Your task to perform on an android device: Open battery settings Image 0: 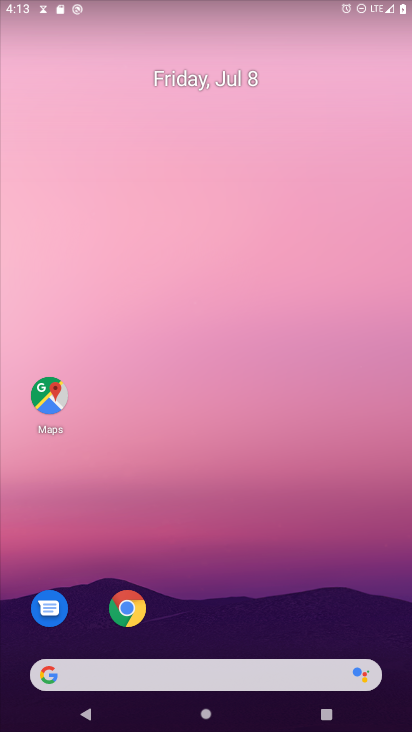
Step 0: drag from (226, 675) to (250, 158)
Your task to perform on an android device: Open battery settings Image 1: 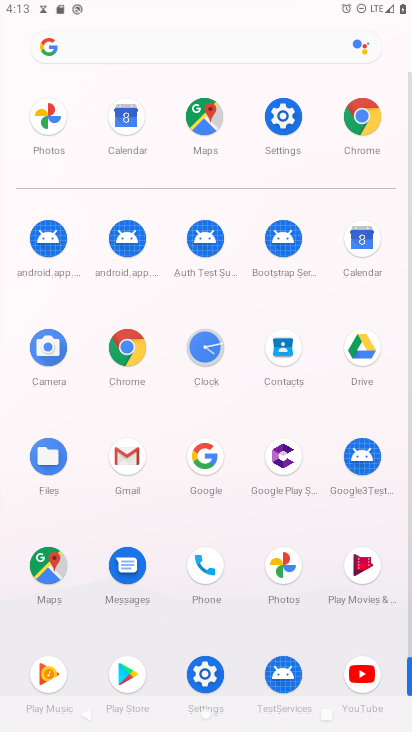
Step 1: click (277, 118)
Your task to perform on an android device: Open battery settings Image 2: 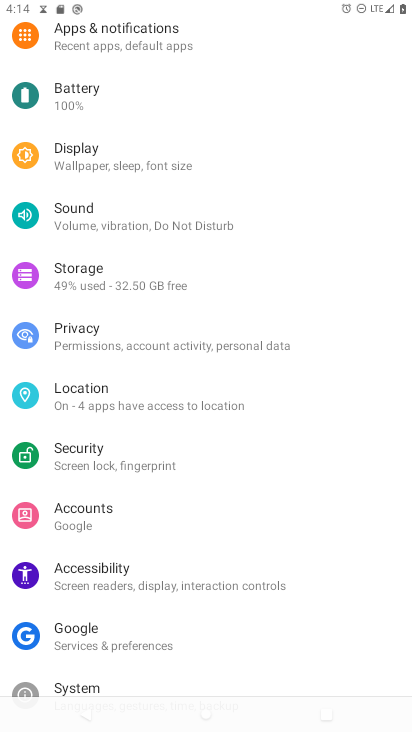
Step 2: click (91, 107)
Your task to perform on an android device: Open battery settings Image 3: 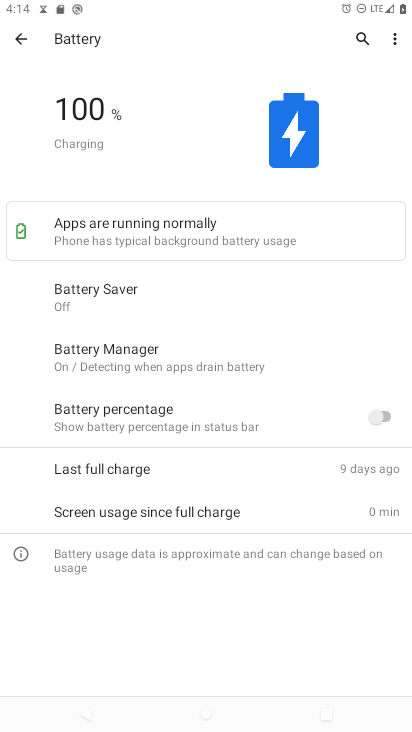
Step 3: task complete